Your task to perform on an android device: open wifi settings Image 0: 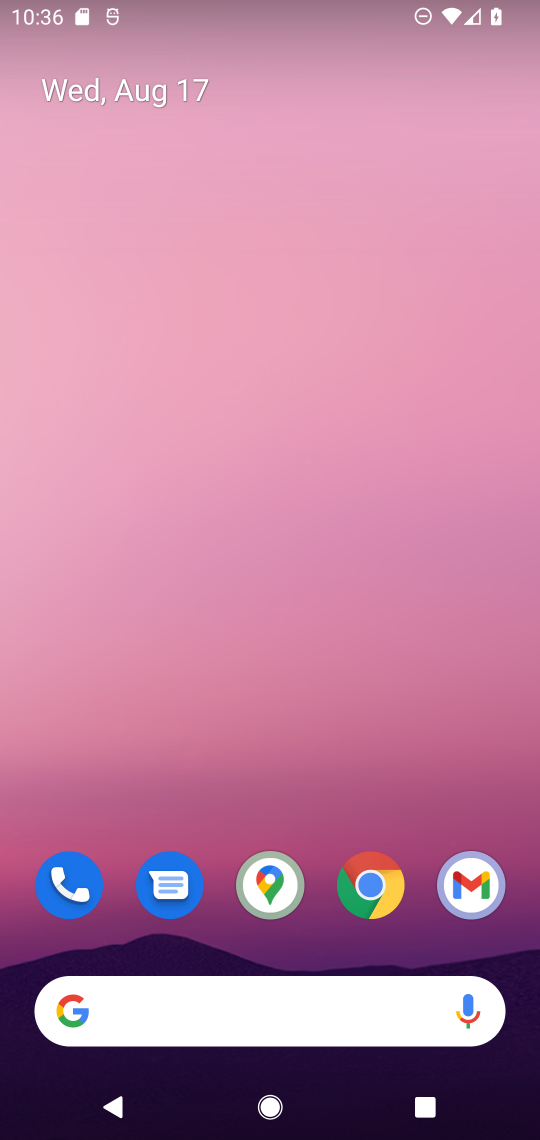
Step 0: drag from (432, 933) to (420, 120)
Your task to perform on an android device: open wifi settings Image 1: 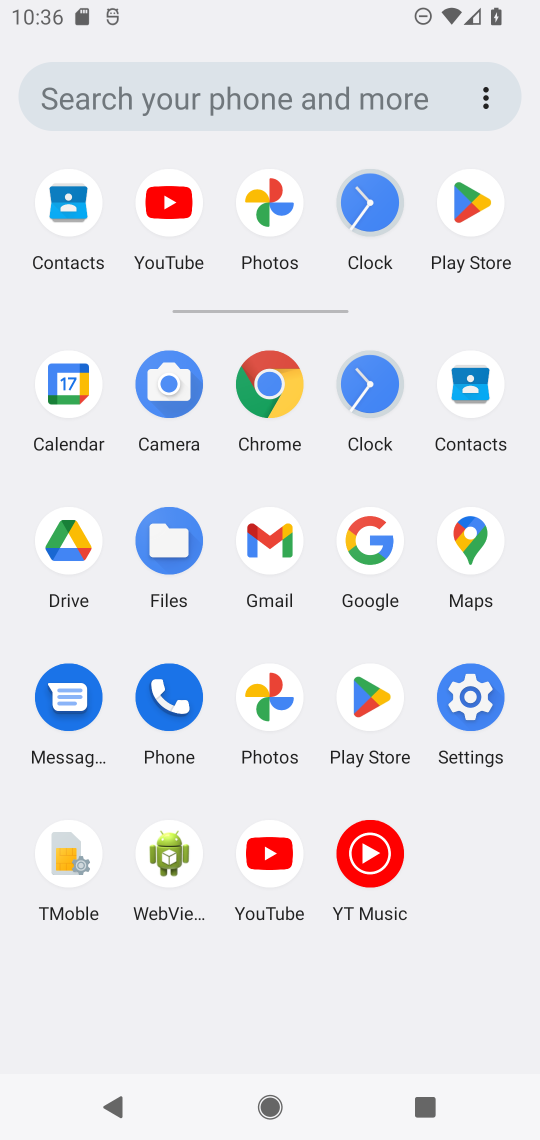
Step 1: click (464, 697)
Your task to perform on an android device: open wifi settings Image 2: 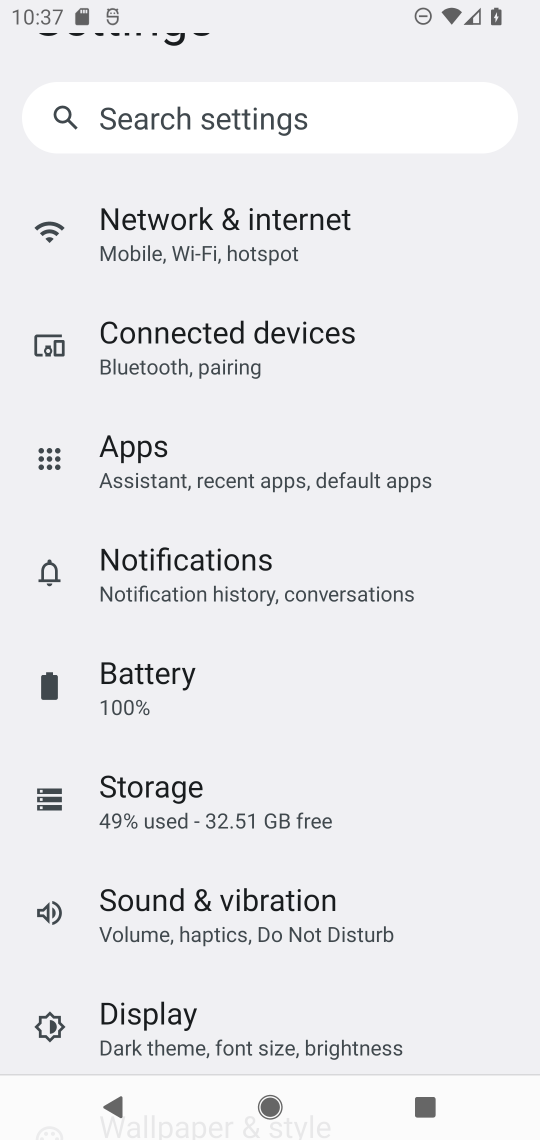
Step 2: click (167, 210)
Your task to perform on an android device: open wifi settings Image 3: 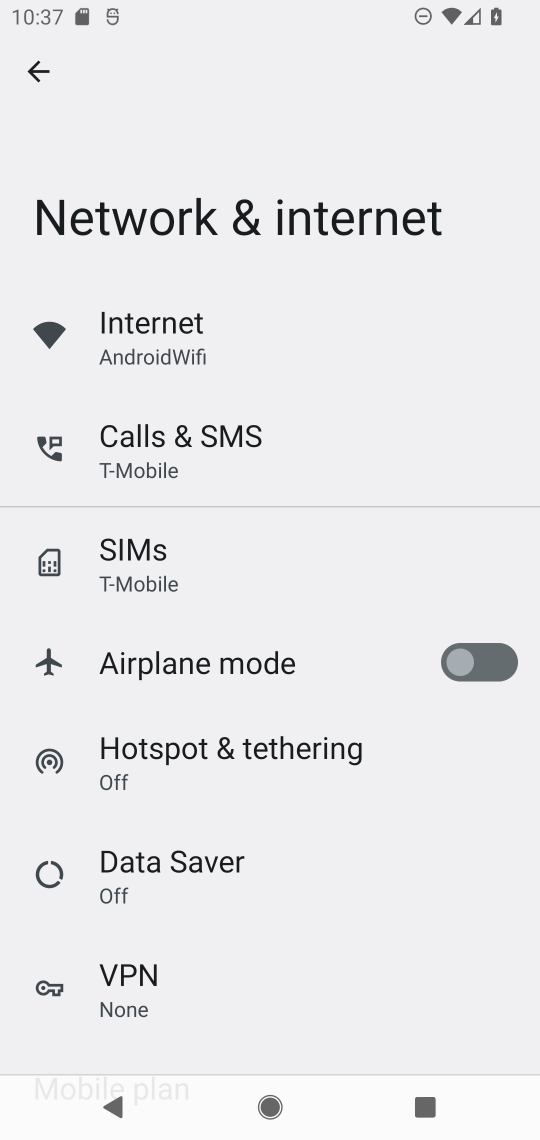
Step 3: click (144, 337)
Your task to perform on an android device: open wifi settings Image 4: 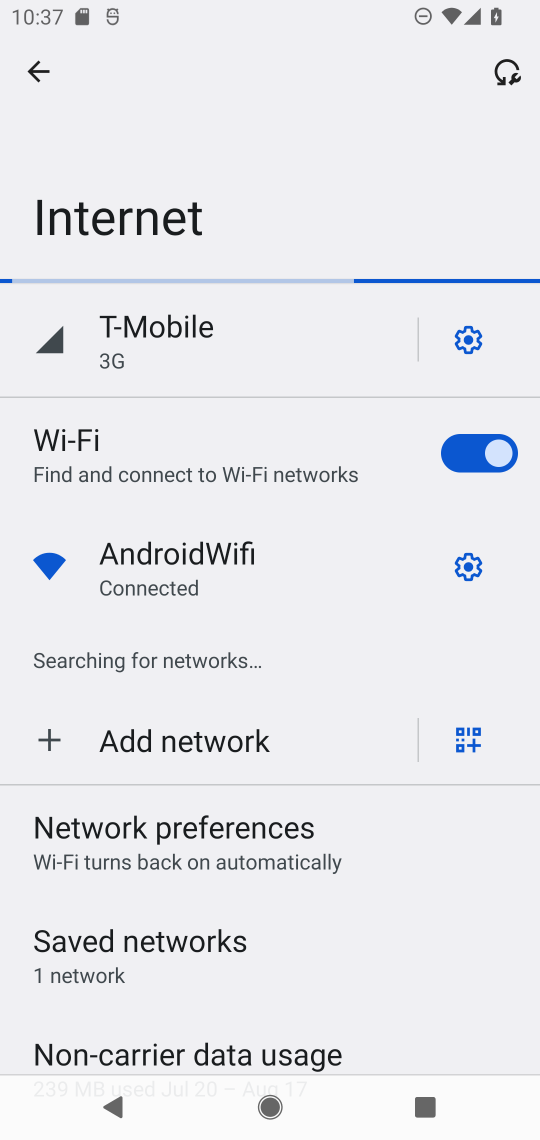
Step 4: click (465, 566)
Your task to perform on an android device: open wifi settings Image 5: 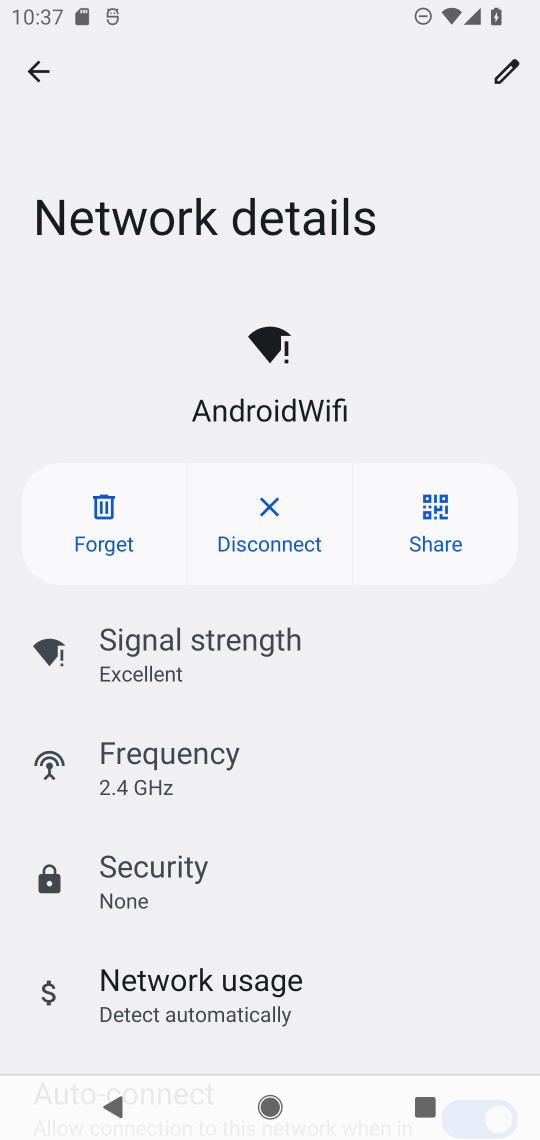
Step 5: task complete